Your task to perform on an android device: Open the phone app and click the voicemail tab. Image 0: 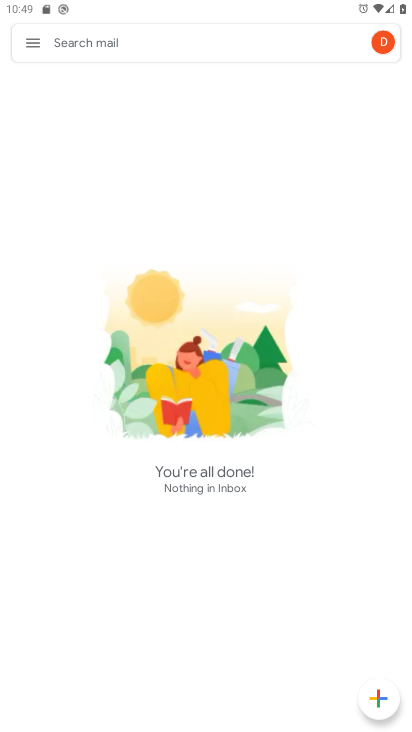
Step 0: press home button
Your task to perform on an android device: Open the phone app and click the voicemail tab. Image 1: 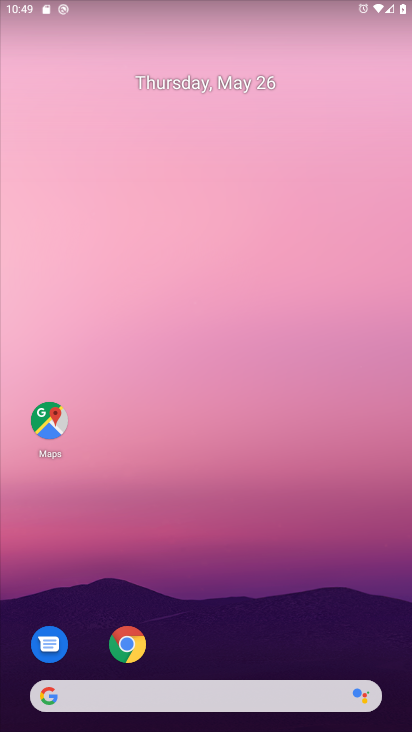
Step 1: drag from (370, 642) to (383, 295)
Your task to perform on an android device: Open the phone app and click the voicemail tab. Image 2: 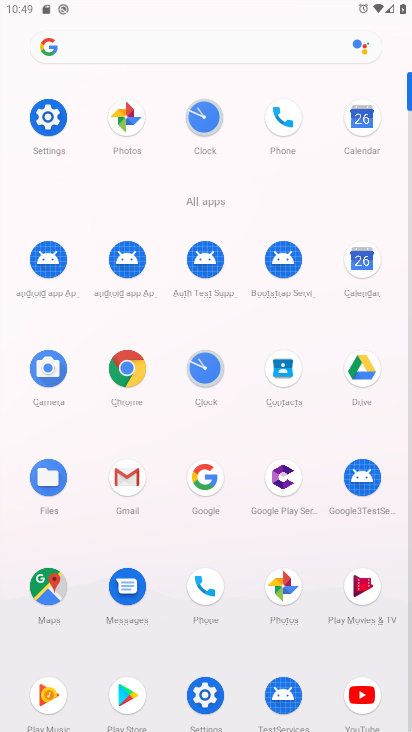
Step 2: click (212, 602)
Your task to perform on an android device: Open the phone app and click the voicemail tab. Image 3: 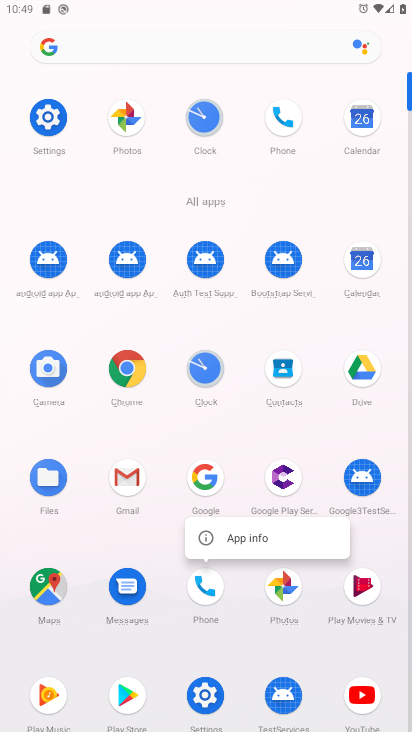
Step 3: click (212, 602)
Your task to perform on an android device: Open the phone app and click the voicemail tab. Image 4: 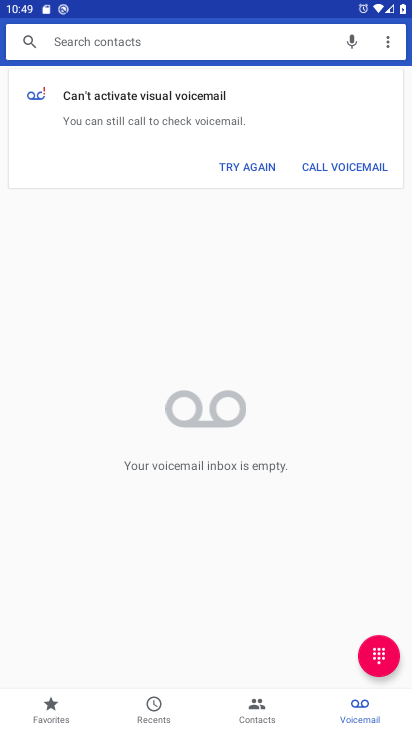
Step 4: task complete